Your task to perform on an android device: turn vacation reply on in the gmail app Image 0: 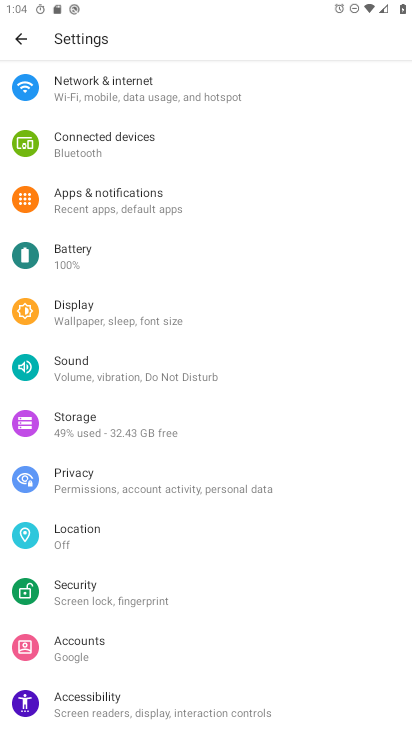
Step 0: press home button
Your task to perform on an android device: turn vacation reply on in the gmail app Image 1: 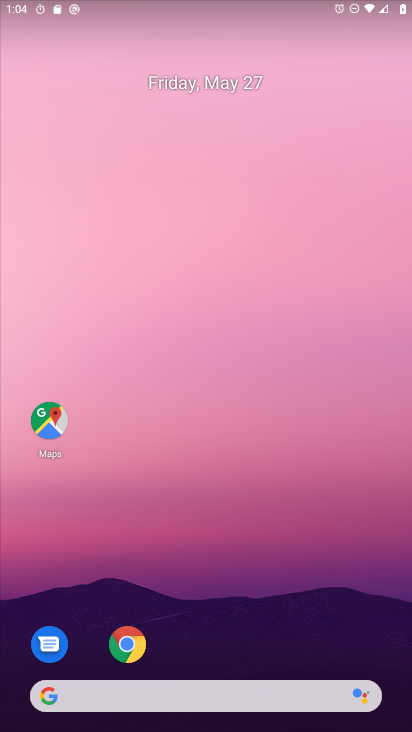
Step 1: drag from (237, 338) to (292, 117)
Your task to perform on an android device: turn vacation reply on in the gmail app Image 2: 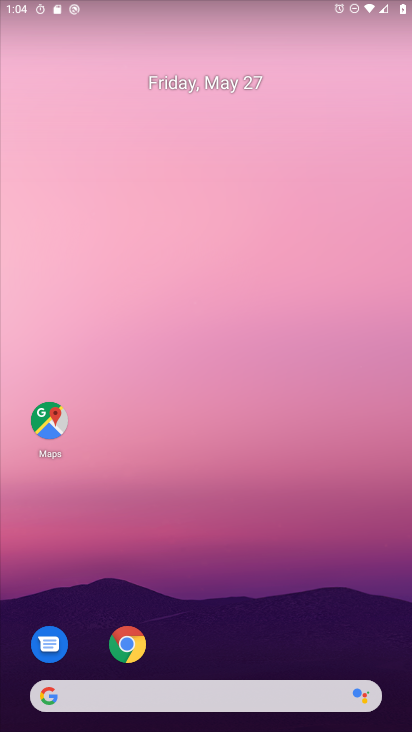
Step 2: drag from (231, 647) to (220, 203)
Your task to perform on an android device: turn vacation reply on in the gmail app Image 3: 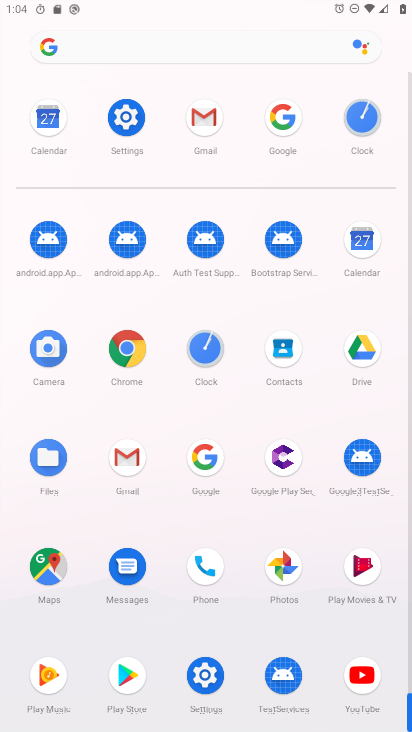
Step 3: click (202, 138)
Your task to perform on an android device: turn vacation reply on in the gmail app Image 4: 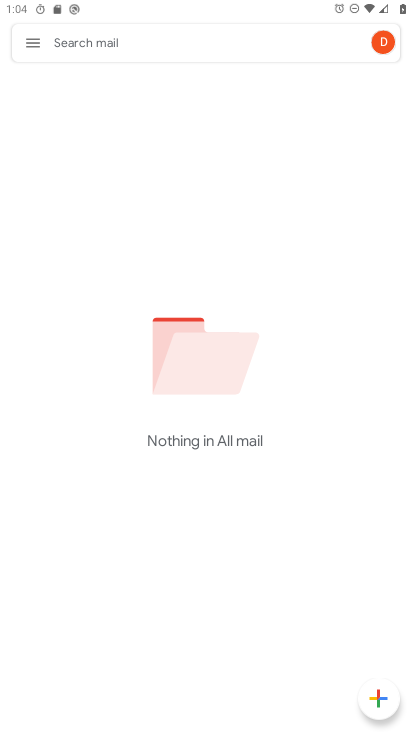
Step 4: click (37, 43)
Your task to perform on an android device: turn vacation reply on in the gmail app Image 5: 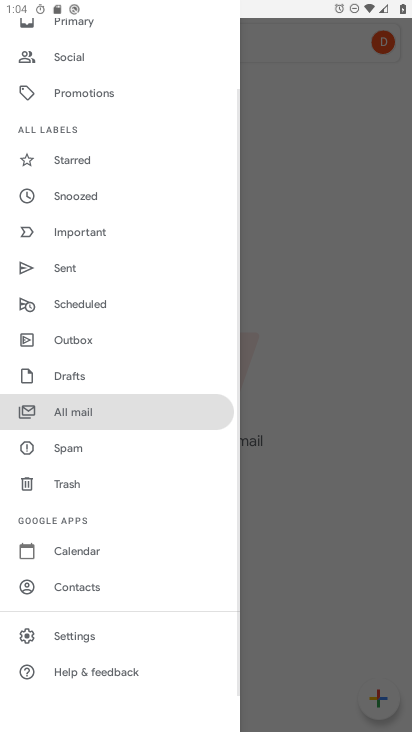
Step 5: click (121, 630)
Your task to perform on an android device: turn vacation reply on in the gmail app Image 6: 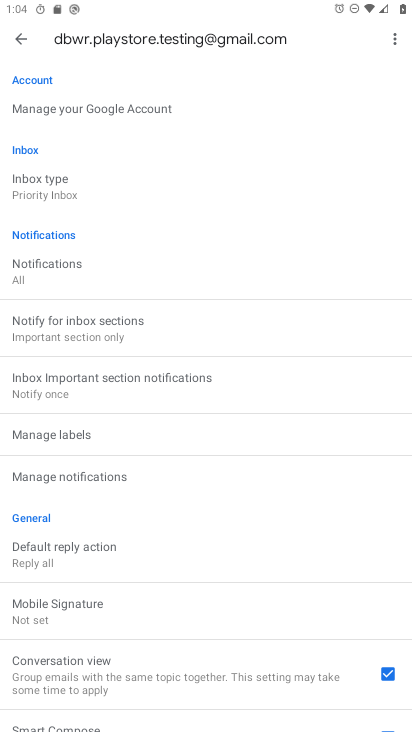
Step 6: drag from (177, 482) to (184, 311)
Your task to perform on an android device: turn vacation reply on in the gmail app Image 7: 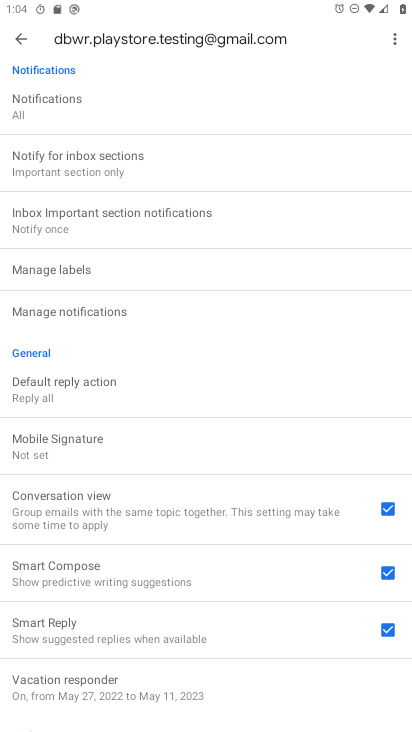
Step 7: click (185, 689)
Your task to perform on an android device: turn vacation reply on in the gmail app Image 8: 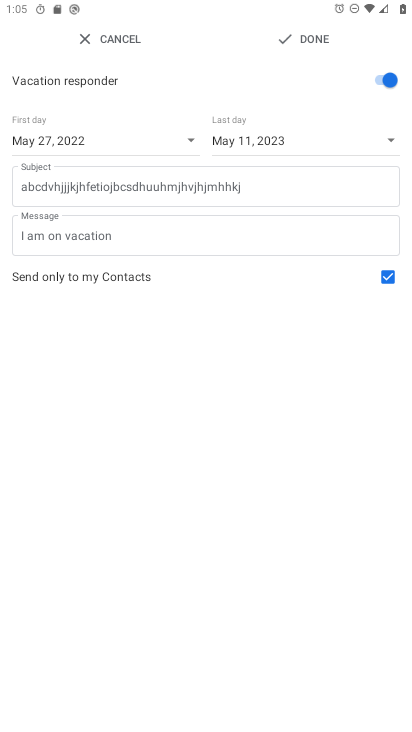
Step 8: task complete